Your task to perform on an android device: turn on notifications settings in the gmail app Image 0: 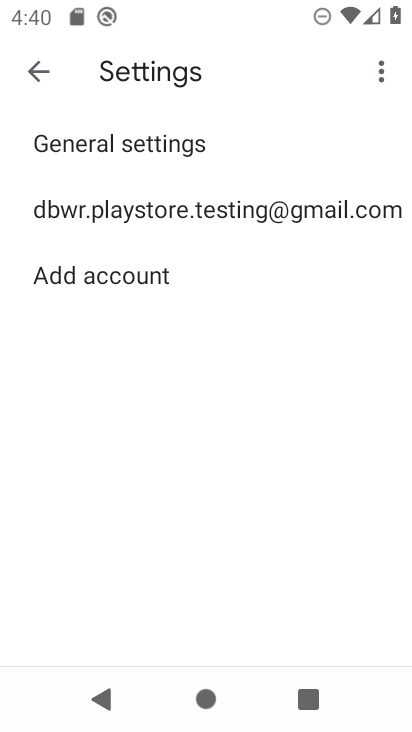
Step 0: press home button
Your task to perform on an android device: turn on notifications settings in the gmail app Image 1: 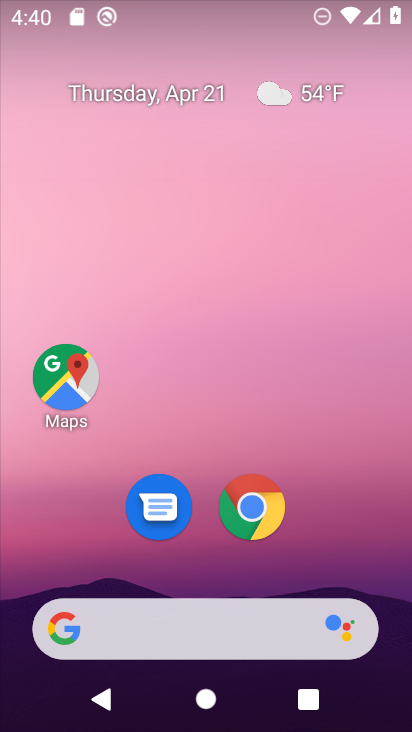
Step 1: drag from (310, 186) to (334, 33)
Your task to perform on an android device: turn on notifications settings in the gmail app Image 2: 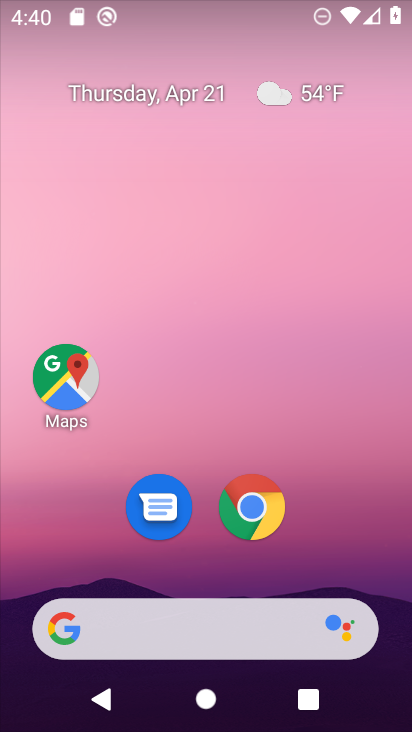
Step 2: drag from (328, 400) to (340, 25)
Your task to perform on an android device: turn on notifications settings in the gmail app Image 3: 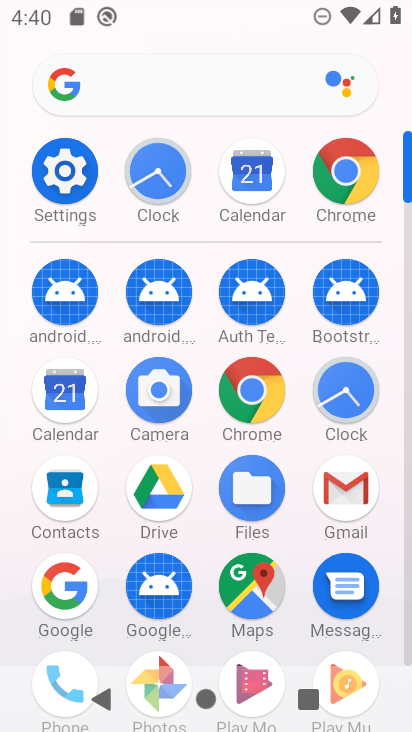
Step 3: click (338, 496)
Your task to perform on an android device: turn on notifications settings in the gmail app Image 4: 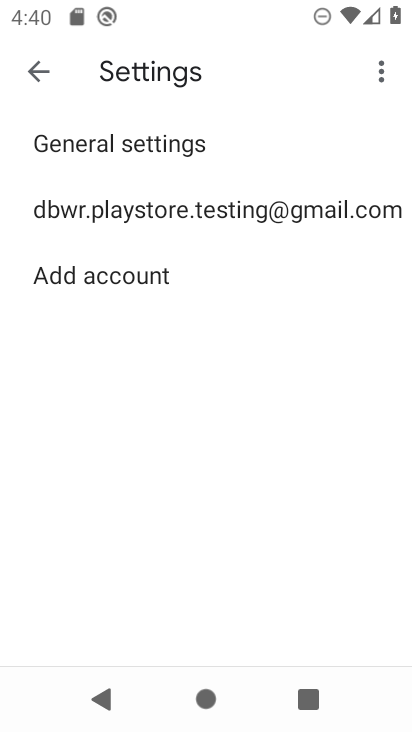
Step 4: click (162, 202)
Your task to perform on an android device: turn on notifications settings in the gmail app Image 5: 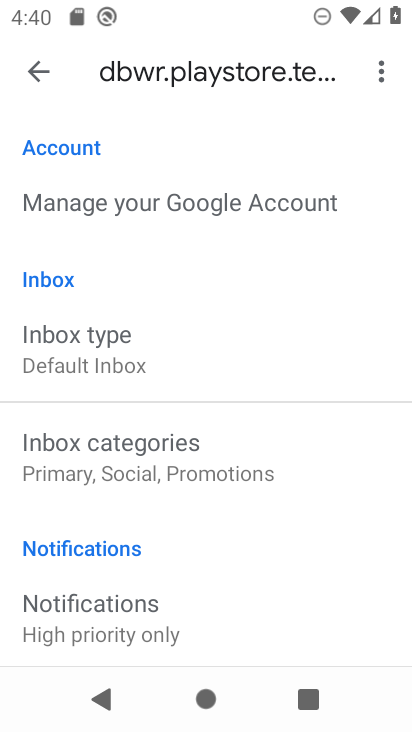
Step 5: click (106, 607)
Your task to perform on an android device: turn on notifications settings in the gmail app Image 6: 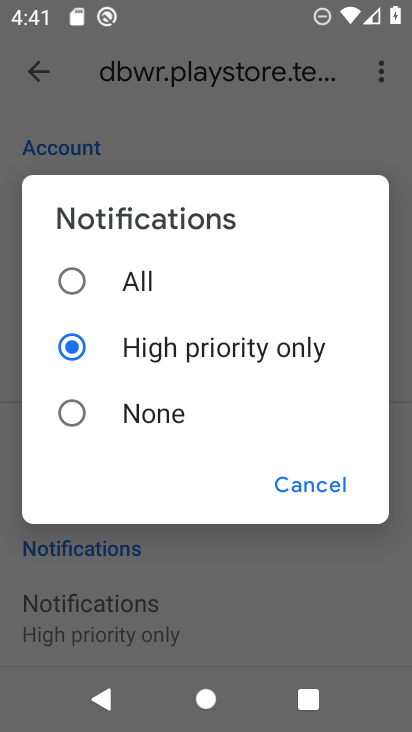
Step 6: click (78, 284)
Your task to perform on an android device: turn on notifications settings in the gmail app Image 7: 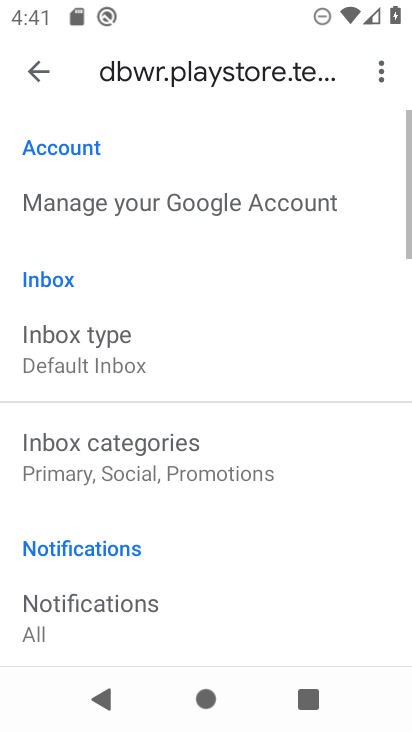
Step 7: task complete